Your task to perform on an android device: turn off priority inbox in the gmail app Image 0: 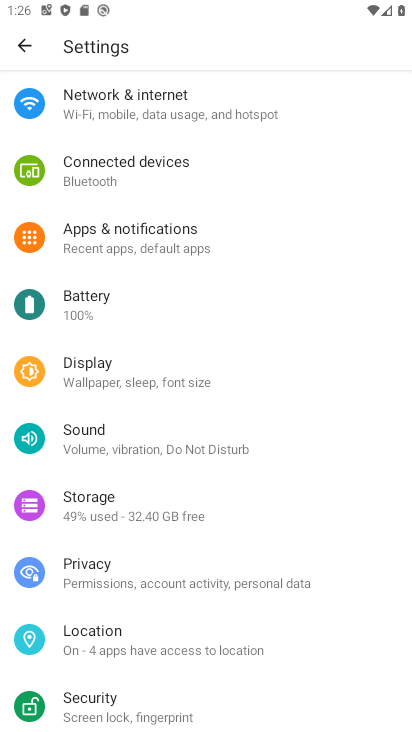
Step 0: press home button
Your task to perform on an android device: turn off priority inbox in the gmail app Image 1: 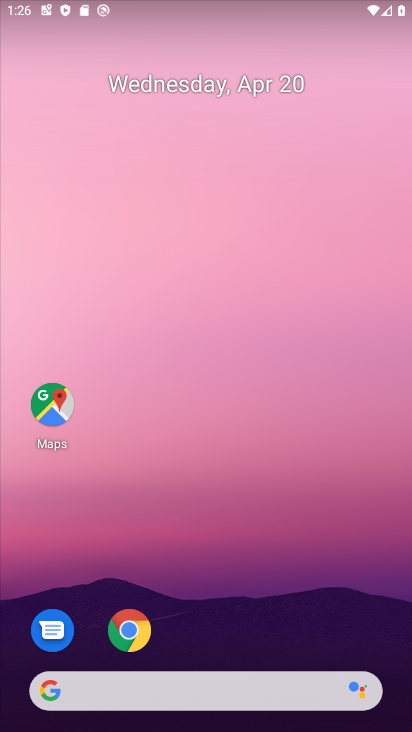
Step 1: drag from (353, 549) to (325, 155)
Your task to perform on an android device: turn off priority inbox in the gmail app Image 2: 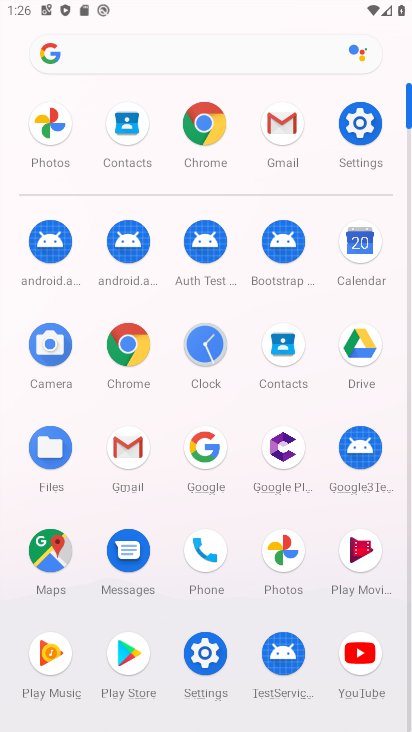
Step 2: click (125, 451)
Your task to perform on an android device: turn off priority inbox in the gmail app Image 3: 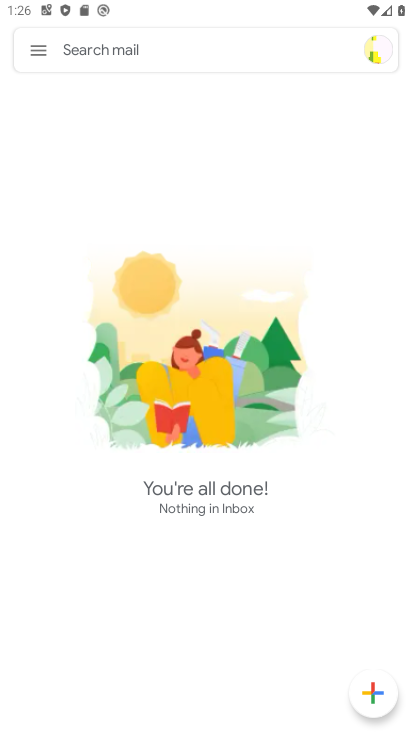
Step 3: click (41, 51)
Your task to perform on an android device: turn off priority inbox in the gmail app Image 4: 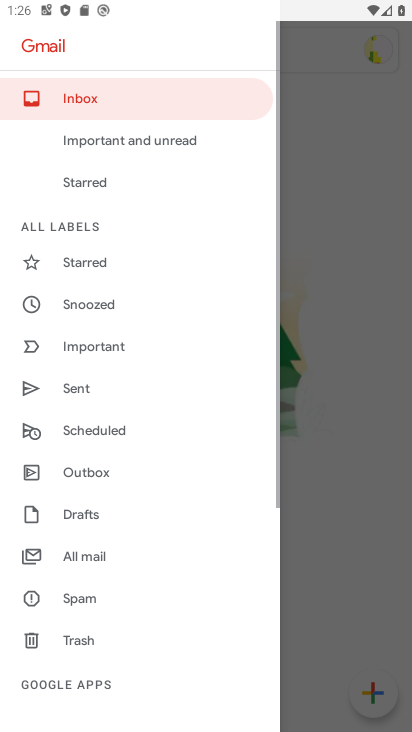
Step 4: drag from (151, 168) to (151, 484)
Your task to perform on an android device: turn off priority inbox in the gmail app Image 5: 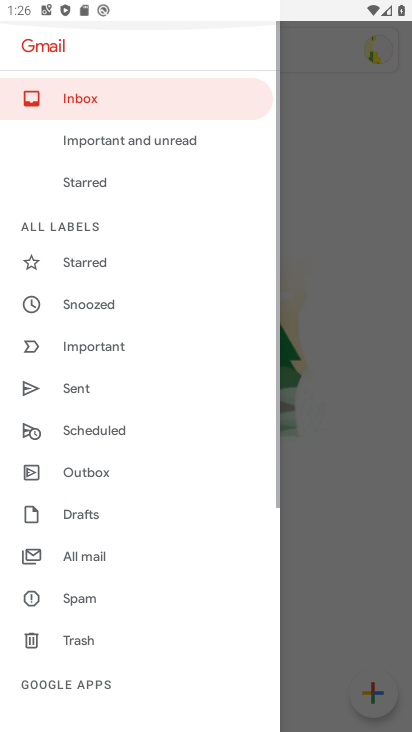
Step 5: drag from (110, 663) to (133, 213)
Your task to perform on an android device: turn off priority inbox in the gmail app Image 6: 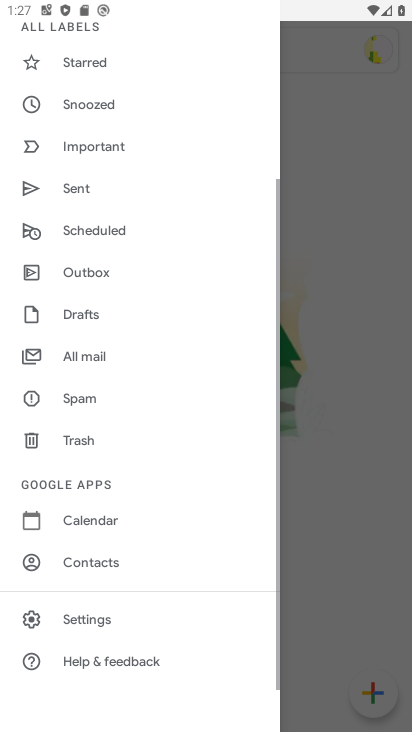
Step 6: click (78, 608)
Your task to perform on an android device: turn off priority inbox in the gmail app Image 7: 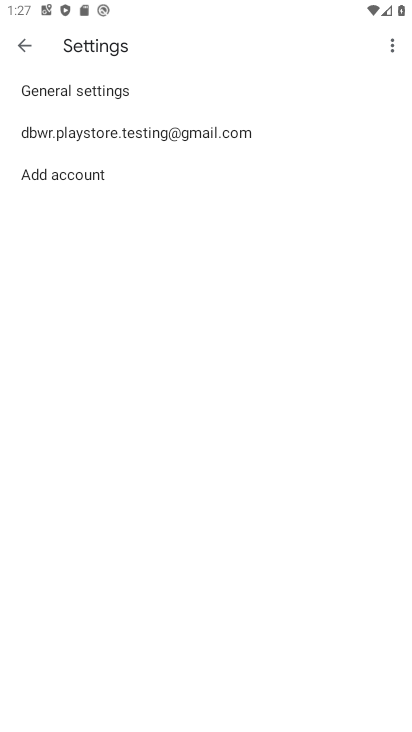
Step 7: click (91, 144)
Your task to perform on an android device: turn off priority inbox in the gmail app Image 8: 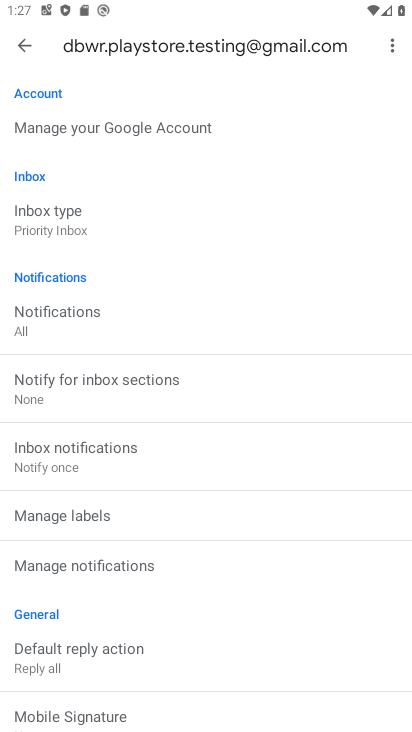
Step 8: click (61, 230)
Your task to perform on an android device: turn off priority inbox in the gmail app Image 9: 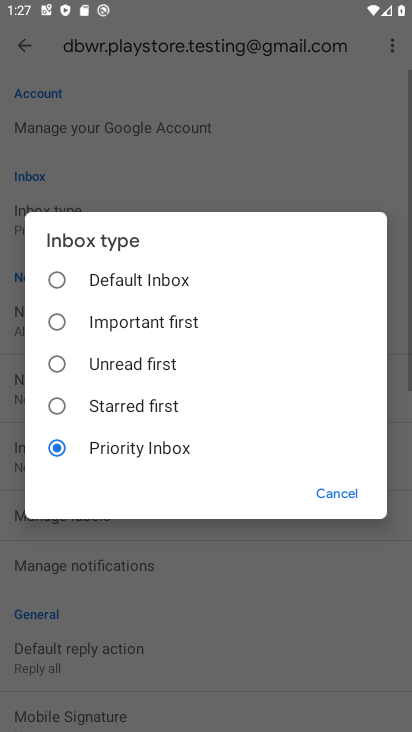
Step 9: click (84, 273)
Your task to perform on an android device: turn off priority inbox in the gmail app Image 10: 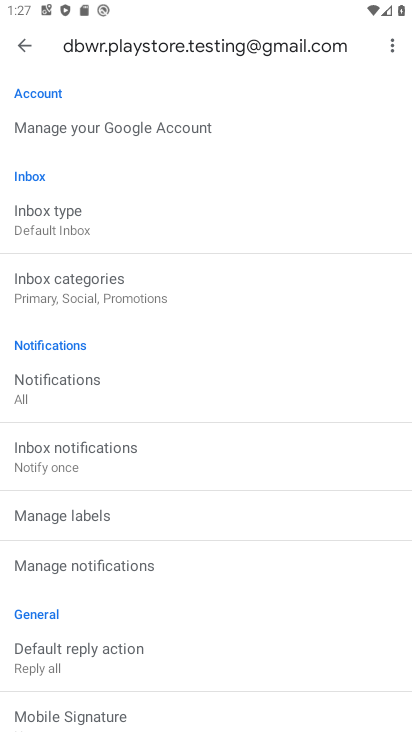
Step 10: task complete